Your task to perform on an android device: change notification settings in the gmail app Image 0: 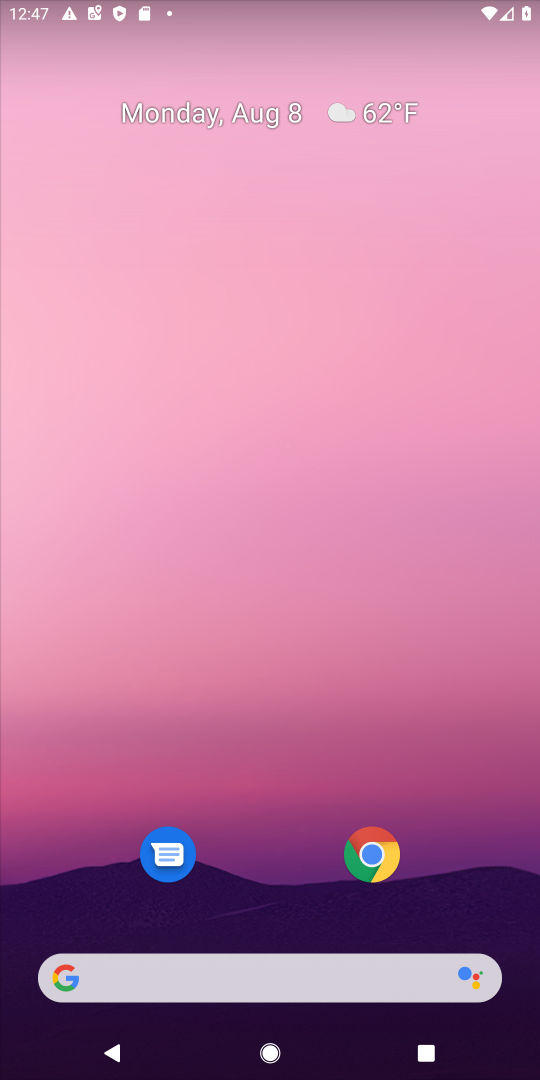
Step 0: press home button
Your task to perform on an android device: change notification settings in the gmail app Image 1: 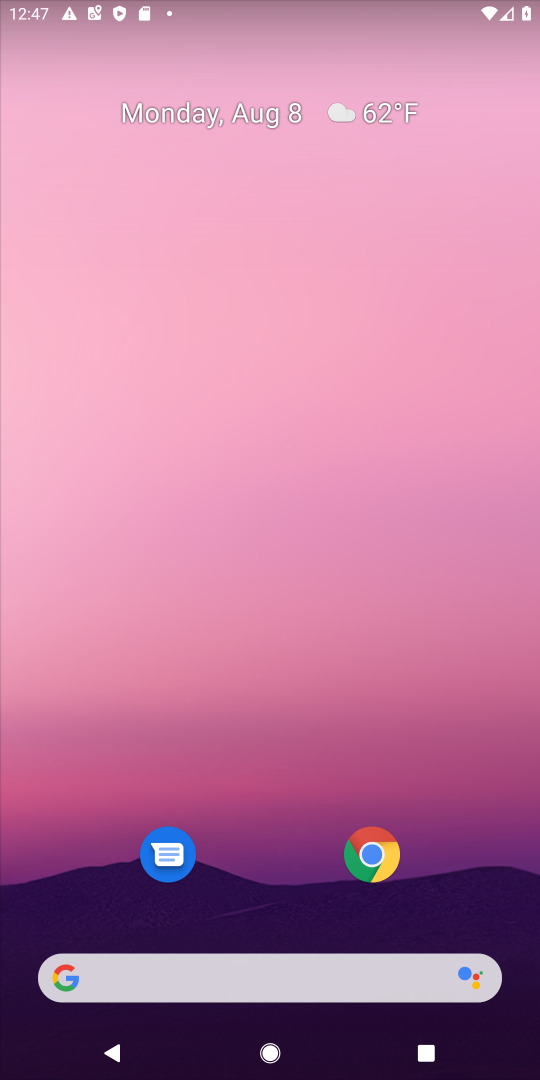
Step 1: drag from (269, 863) to (336, 12)
Your task to perform on an android device: change notification settings in the gmail app Image 2: 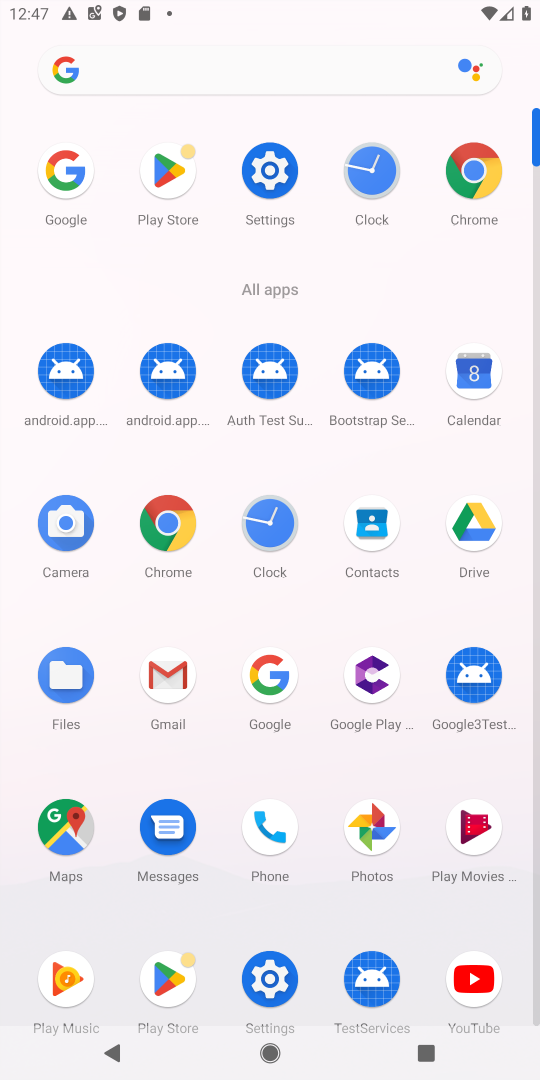
Step 2: click (161, 675)
Your task to perform on an android device: change notification settings in the gmail app Image 3: 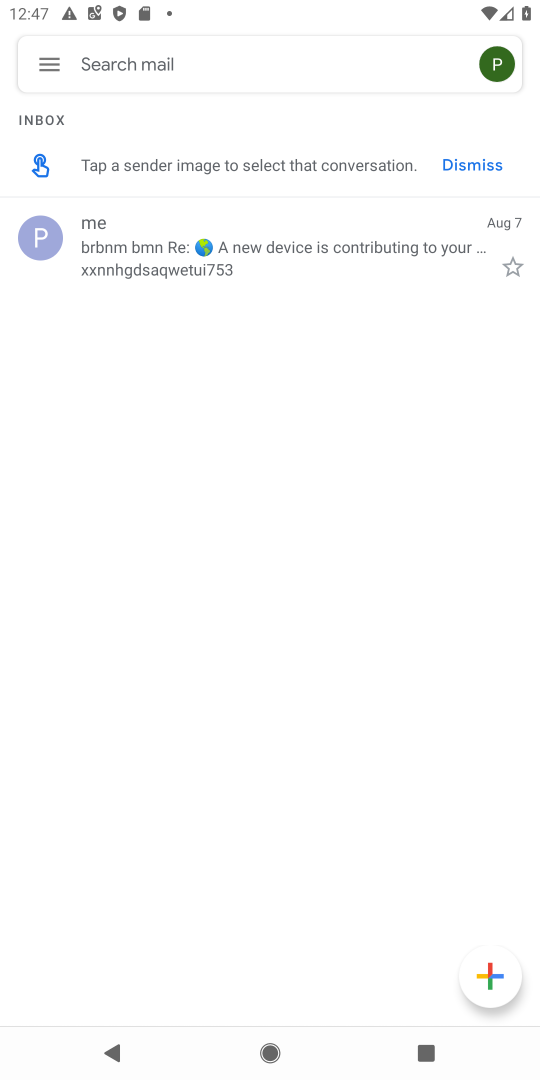
Step 3: click (502, 67)
Your task to perform on an android device: change notification settings in the gmail app Image 4: 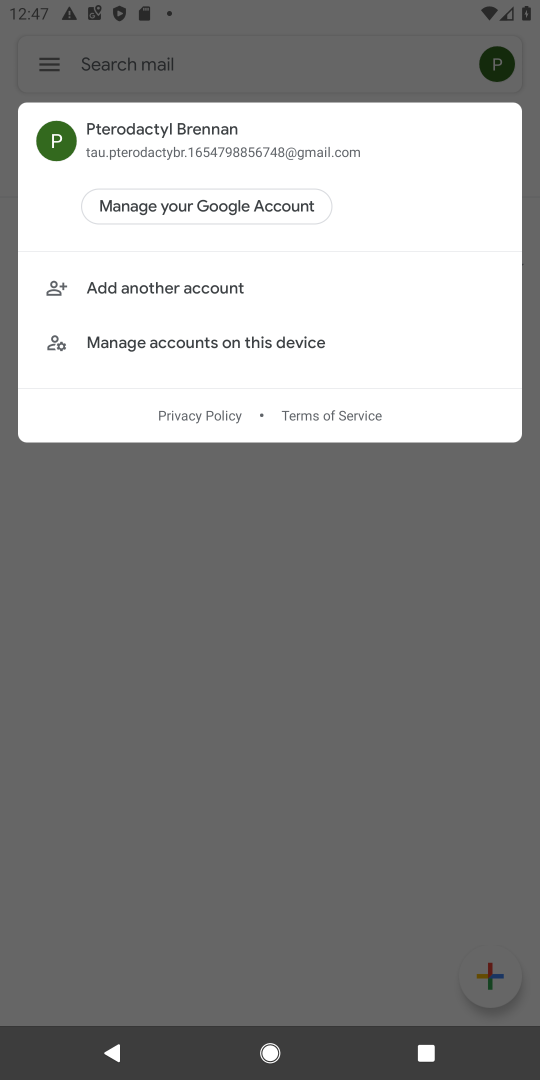
Step 4: click (502, 67)
Your task to perform on an android device: change notification settings in the gmail app Image 5: 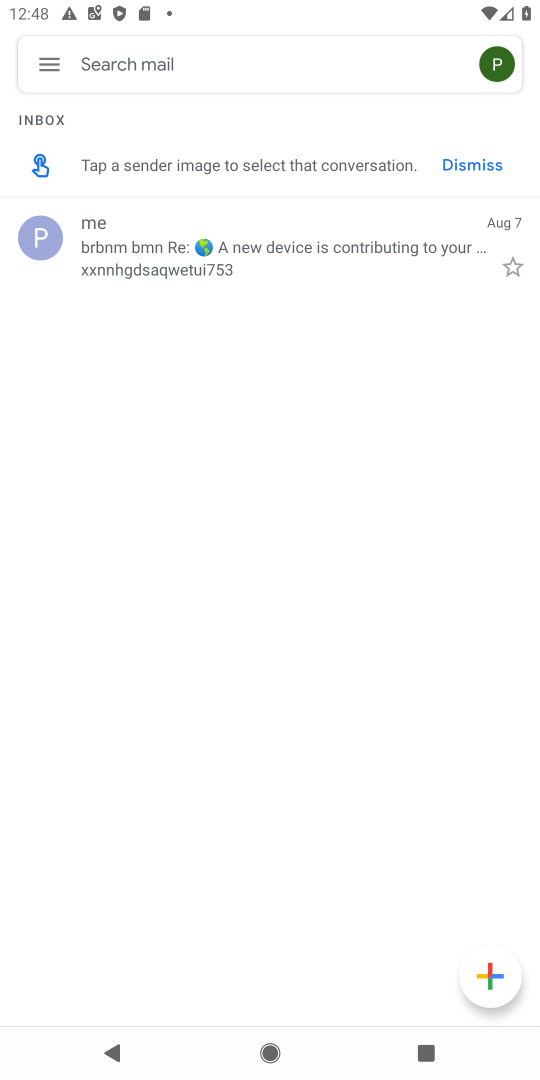
Step 5: click (52, 63)
Your task to perform on an android device: change notification settings in the gmail app Image 6: 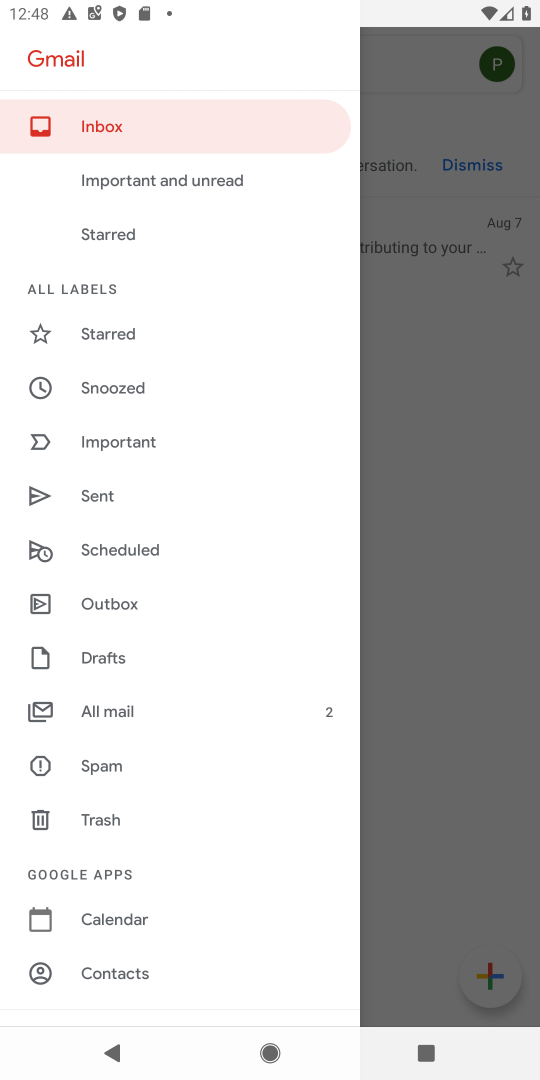
Step 6: drag from (151, 883) to (219, 271)
Your task to perform on an android device: change notification settings in the gmail app Image 7: 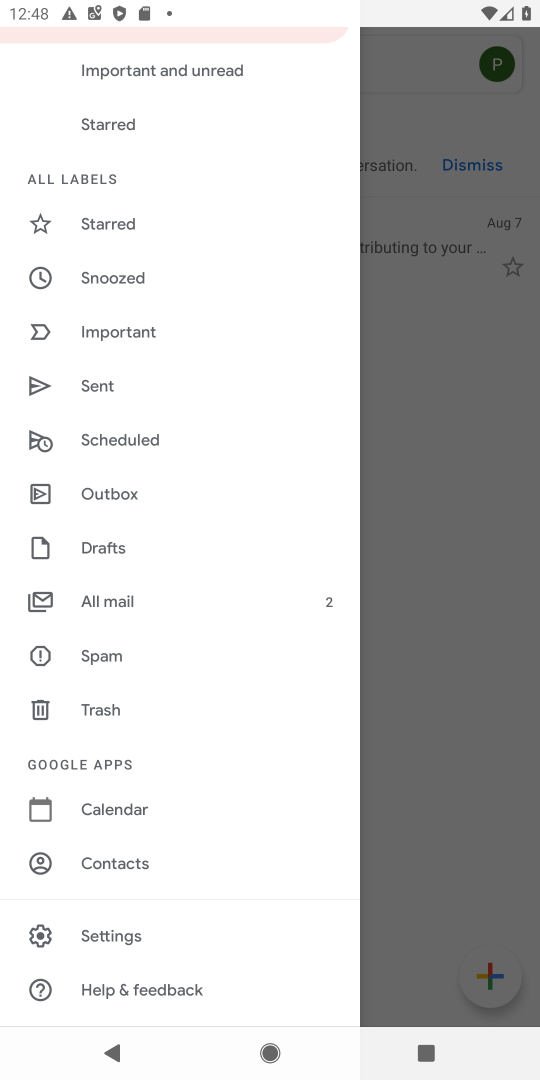
Step 7: click (128, 931)
Your task to perform on an android device: change notification settings in the gmail app Image 8: 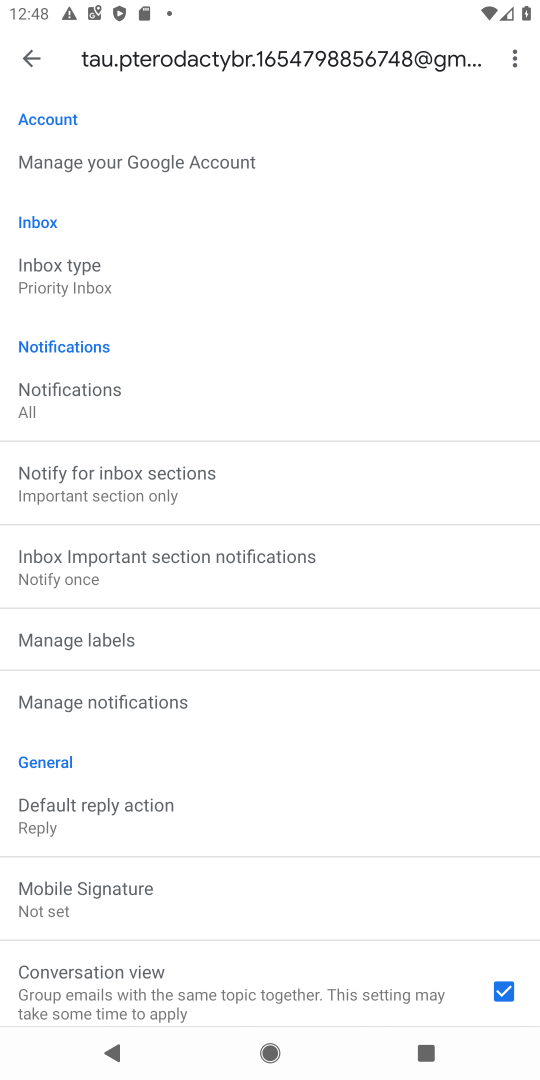
Step 8: click (132, 698)
Your task to perform on an android device: change notification settings in the gmail app Image 9: 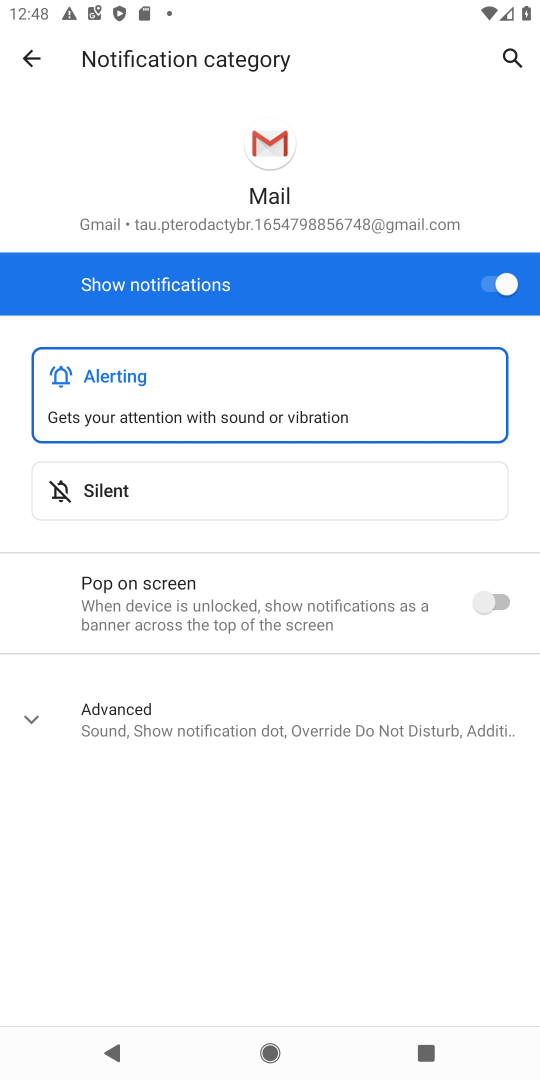
Step 9: click (494, 277)
Your task to perform on an android device: change notification settings in the gmail app Image 10: 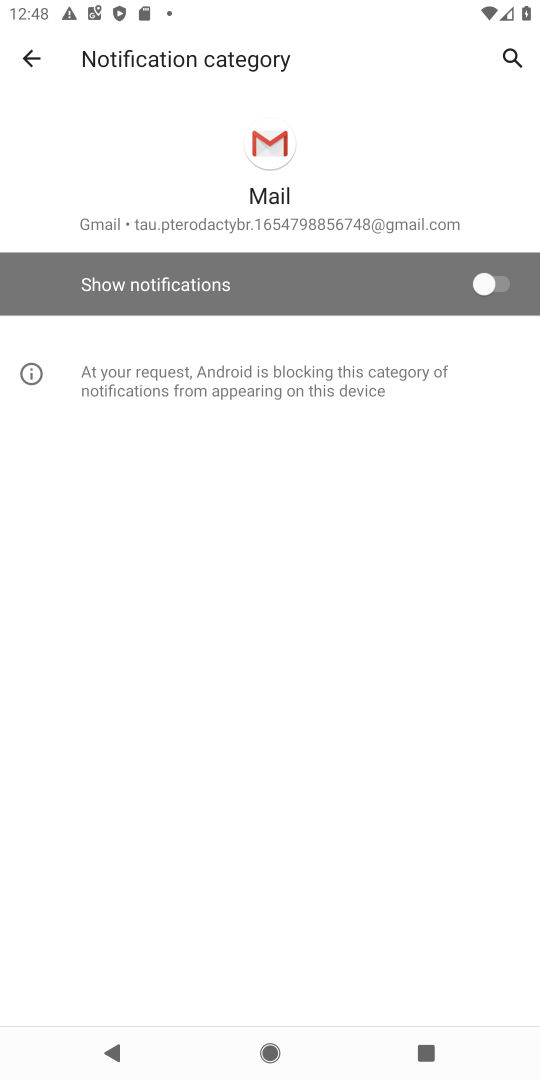
Step 10: task complete